Your task to perform on an android device: empty trash in google photos Image 0: 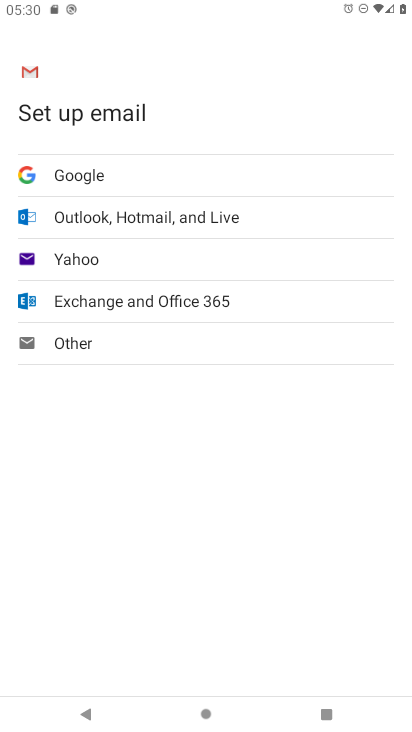
Step 0: press home button
Your task to perform on an android device: empty trash in google photos Image 1: 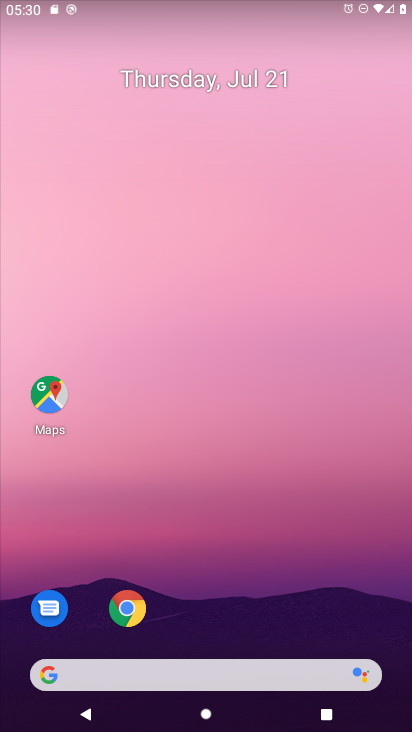
Step 1: drag from (273, 598) to (380, 28)
Your task to perform on an android device: empty trash in google photos Image 2: 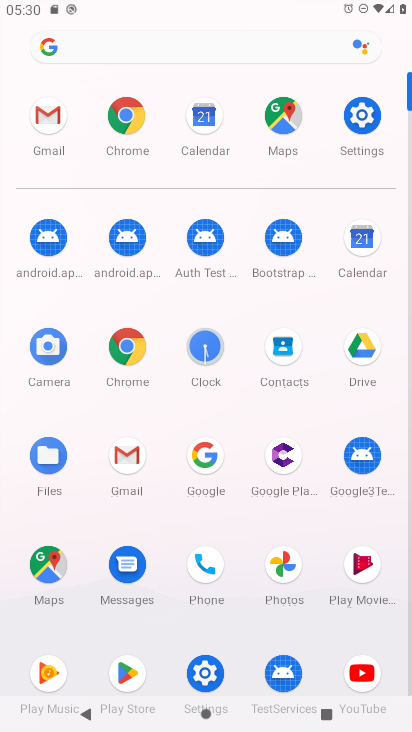
Step 2: click (285, 562)
Your task to perform on an android device: empty trash in google photos Image 3: 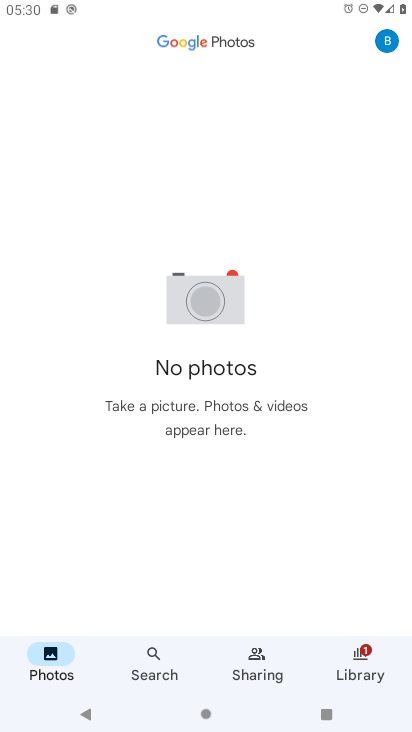
Step 3: click (391, 41)
Your task to perform on an android device: empty trash in google photos Image 4: 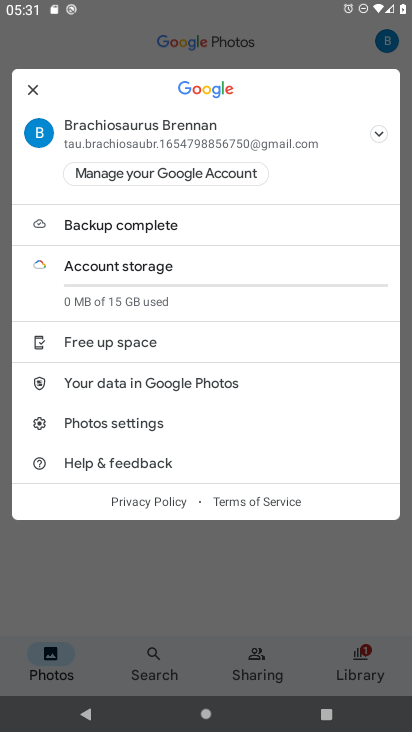
Step 4: click (121, 556)
Your task to perform on an android device: empty trash in google photos Image 5: 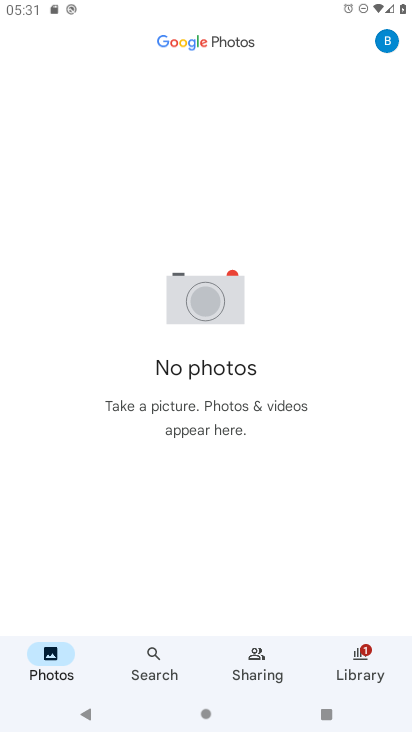
Step 5: click (363, 662)
Your task to perform on an android device: empty trash in google photos Image 6: 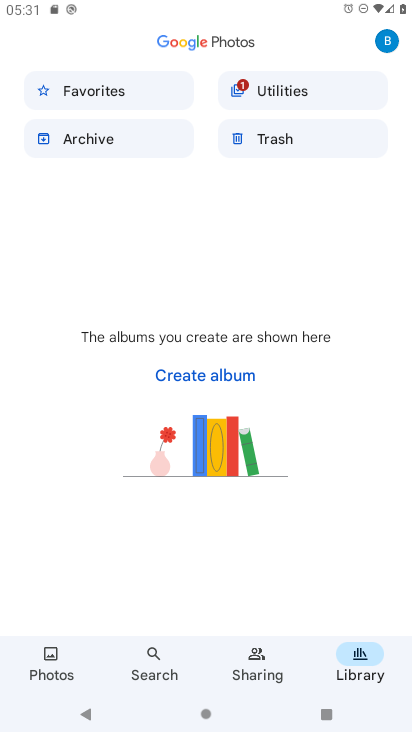
Step 6: click (300, 137)
Your task to perform on an android device: empty trash in google photos Image 7: 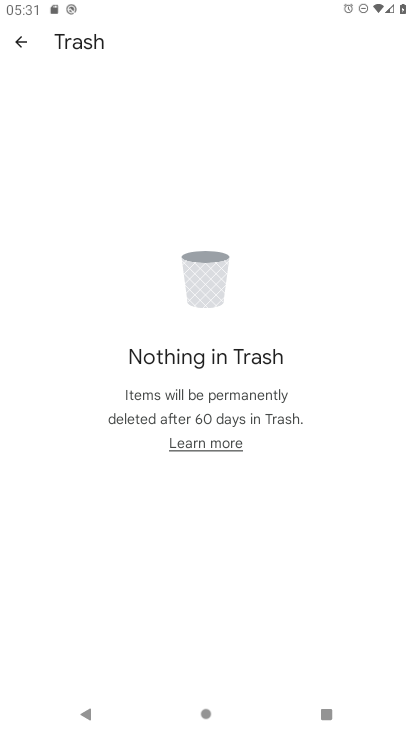
Step 7: task complete